Your task to perform on an android device: Do I have any events tomorrow? Image 0: 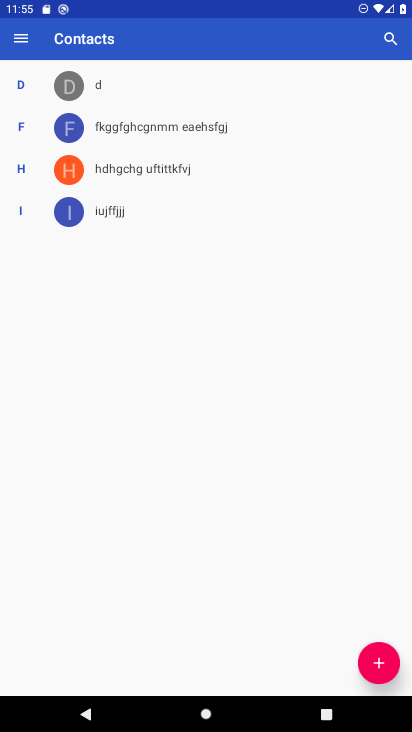
Step 0: drag from (243, 726) to (243, 430)
Your task to perform on an android device: Do I have any events tomorrow? Image 1: 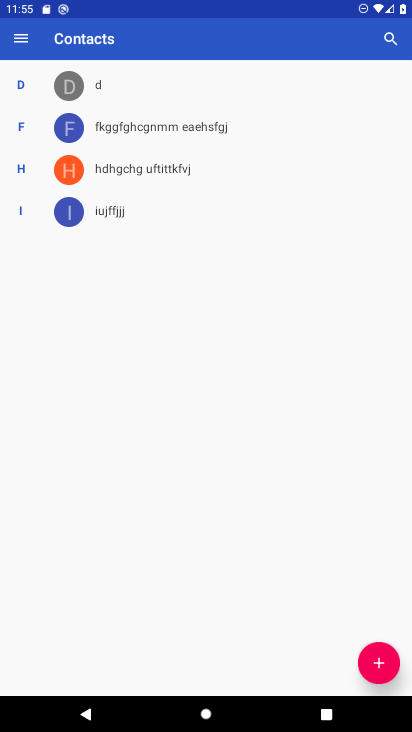
Step 1: press home button
Your task to perform on an android device: Do I have any events tomorrow? Image 2: 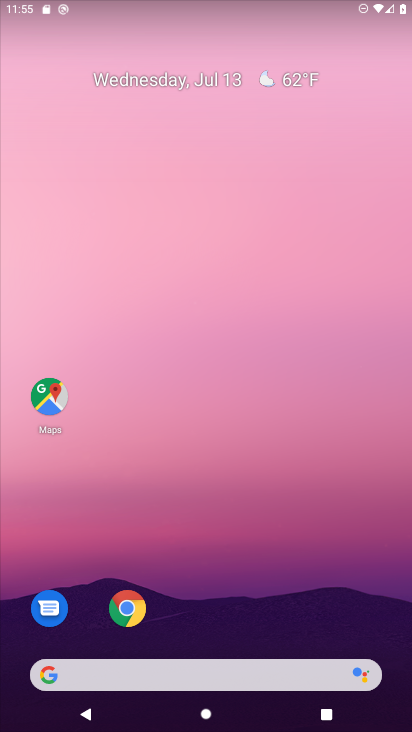
Step 2: drag from (244, 723) to (257, 31)
Your task to perform on an android device: Do I have any events tomorrow? Image 3: 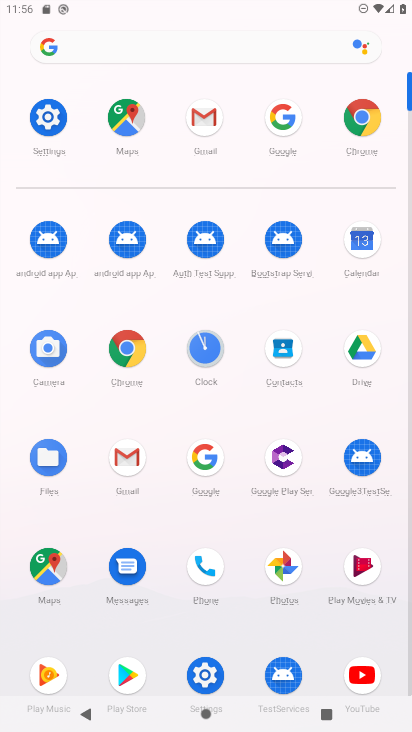
Step 3: click (362, 245)
Your task to perform on an android device: Do I have any events tomorrow? Image 4: 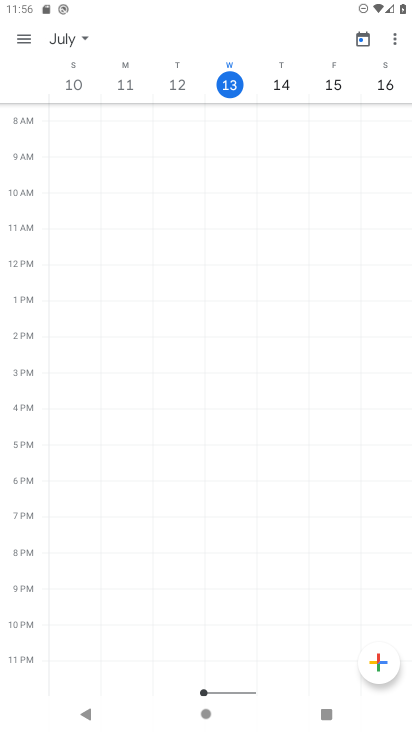
Step 4: click (281, 86)
Your task to perform on an android device: Do I have any events tomorrow? Image 5: 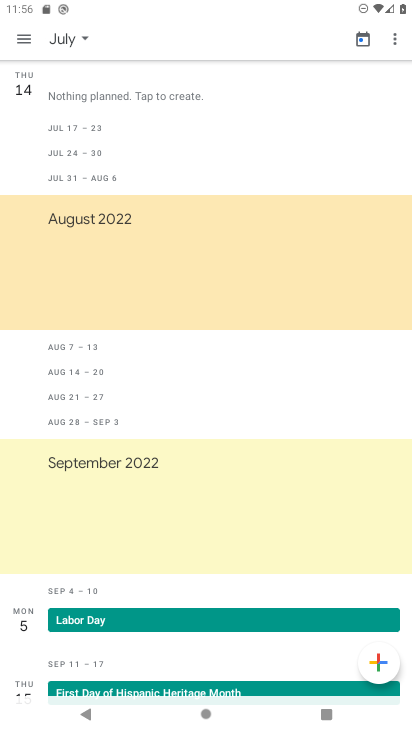
Step 5: click (82, 34)
Your task to perform on an android device: Do I have any events tomorrow? Image 6: 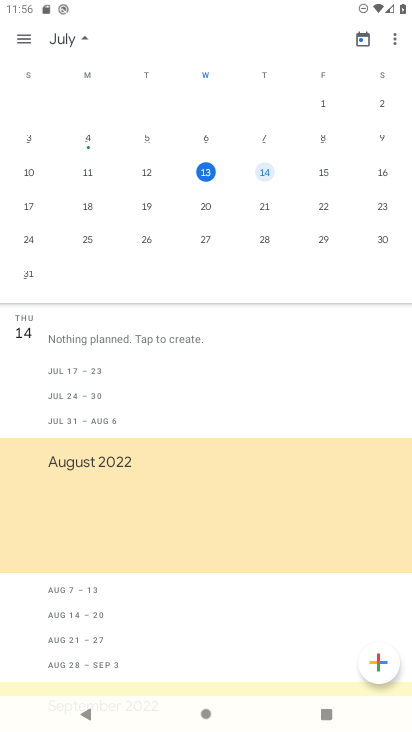
Step 6: click (324, 169)
Your task to perform on an android device: Do I have any events tomorrow? Image 7: 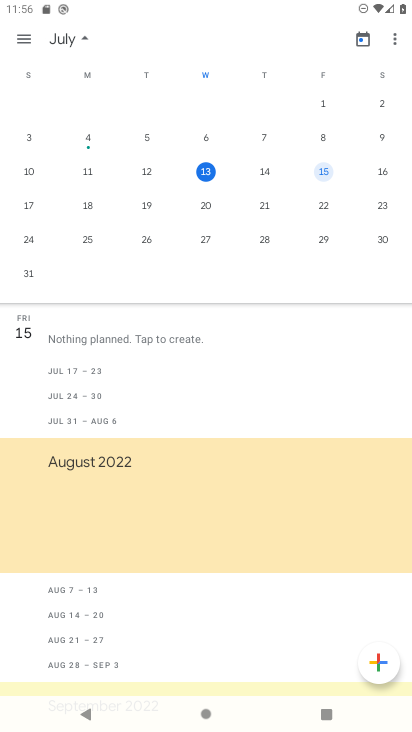
Step 7: click (318, 170)
Your task to perform on an android device: Do I have any events tomorrow? Image 8: 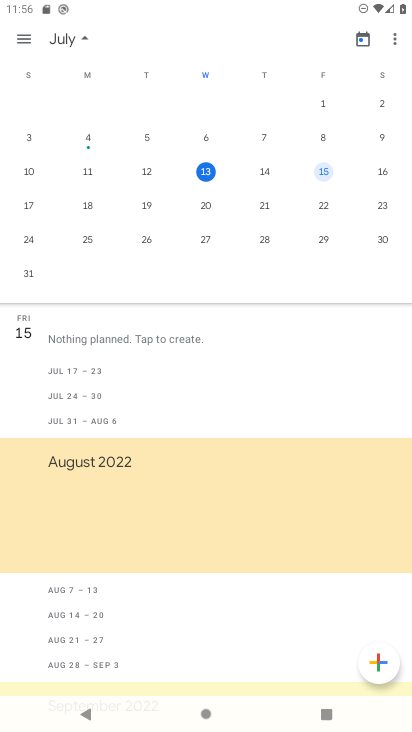
Step 8: click (321, 168)
Your task to perform on an android device: Do I have any events tomorrow? Image 9: 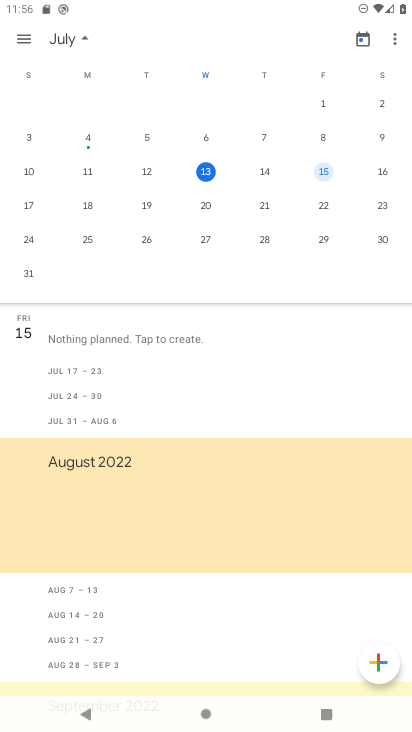
Step 9: click (20, 316)
Your task to perform on an android device: Do I have any events tomorrow? Image 10: 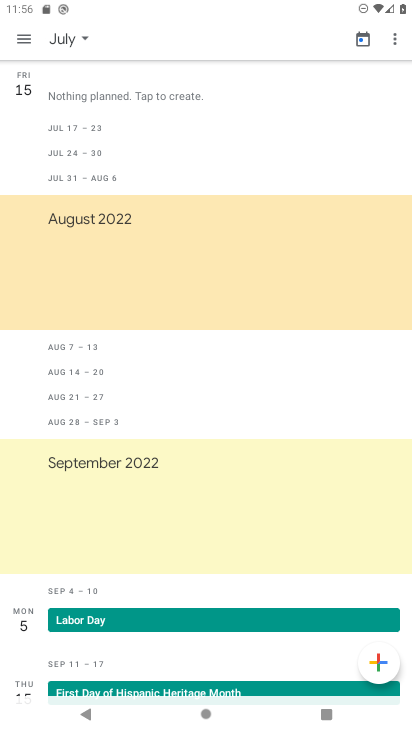
Step 10: task complete